Your task to perform on an android device: Open wifi settings Image 0: 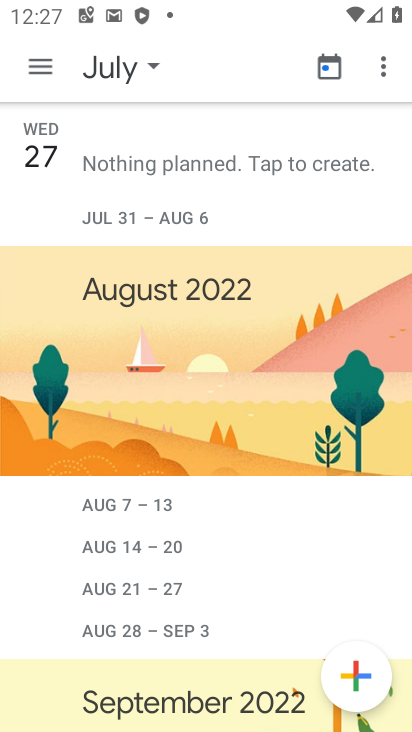
Step 0: press home button
Your task to perform on an android device: Open wifi settings Image 1: 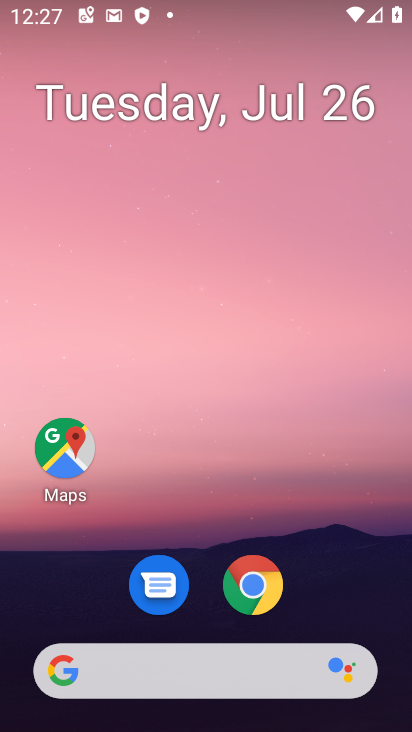
Step 1: drag from (187, 640) to (346, 135)
Your task to perform on an android device: Open wifi settings Image 2: 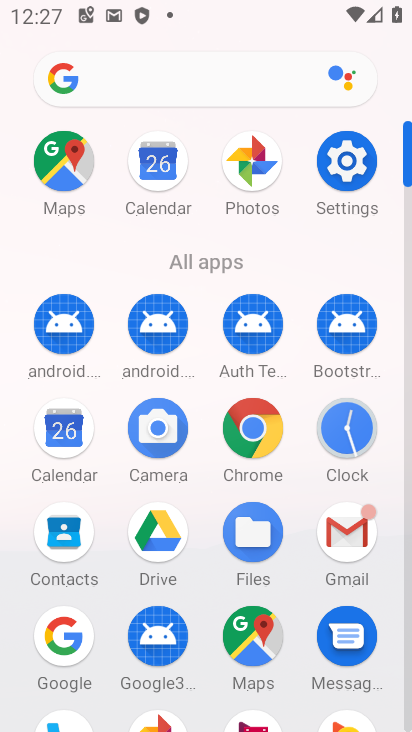
Step 2: click (348, 144)
Your task to perform on an android device: Open wifi settings Image 3: 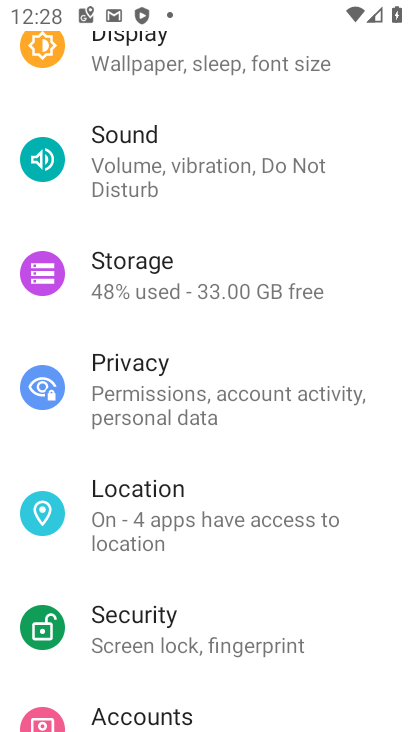
Step 3: drag from (300, 375) to (297, 572)
Your task to perform on an android device: Open wifi settings Image 4: 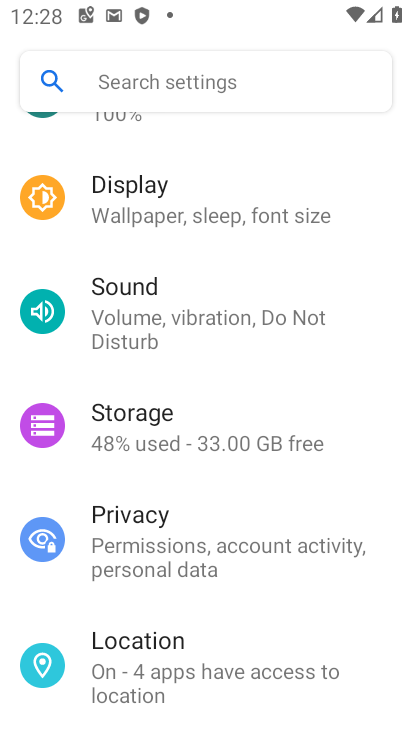
Step 4: drag from (229, 157) to (270, 616)
Your task to perform on an android device: Open wifi settings Image 5: 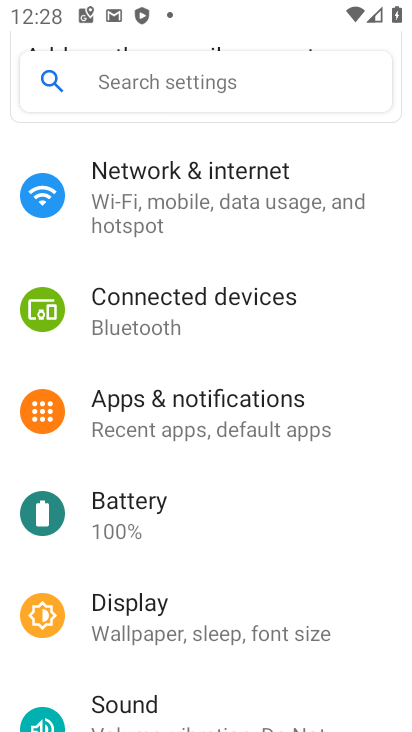
Step 5: click (176, 185)
Your task to perform on an android device: Open wifi settings Image 6: 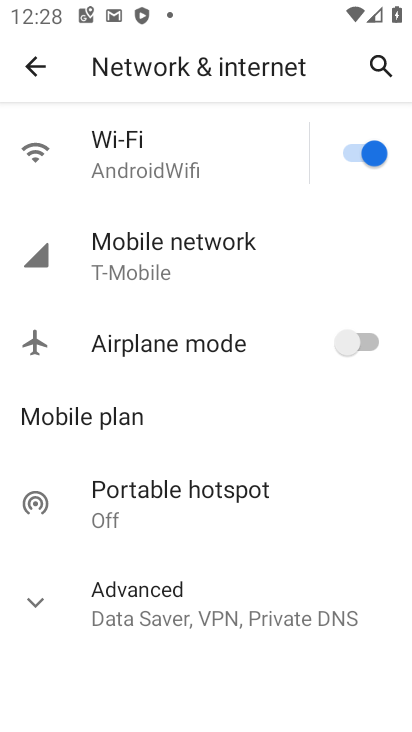
Step 6: click (148, 162)
Your task to perform on an android device: Open wifi settings Image 7: 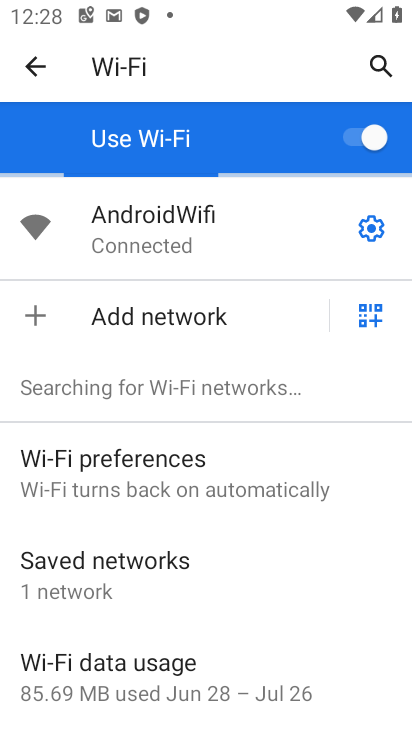
Step 7: task complete